Your task to perform on an android device: move an email to a new category in the gmail app Image 0: 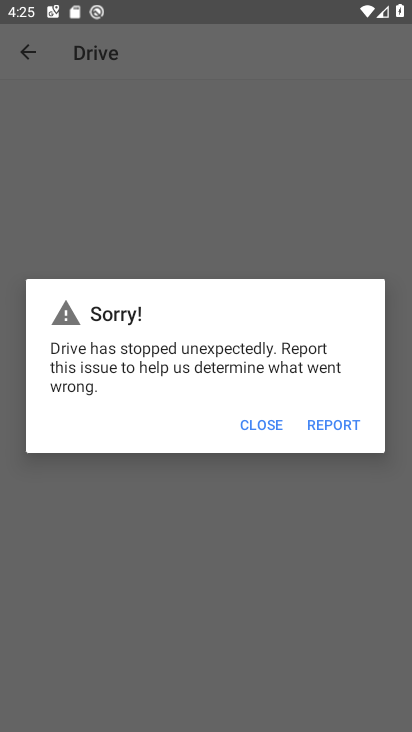
Step 0: press home button
Your task to perform on an android device: move an email to a new category in the gmail app Image 1: 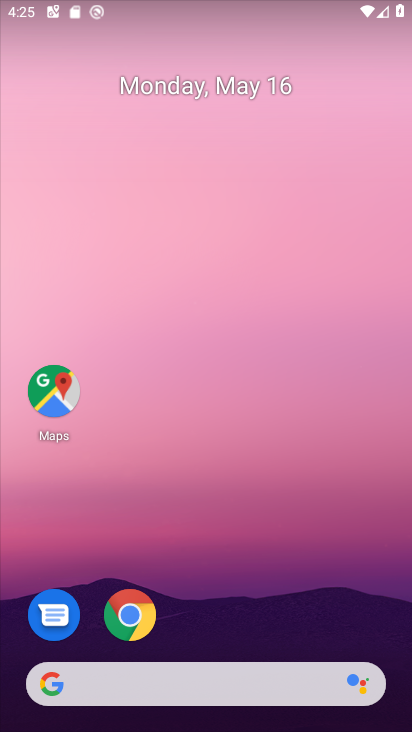
Step 1: drag from (233, 588) to (221, 130)
Your task to perform on an android device: move an email to a new category in the gmail app Image 2: 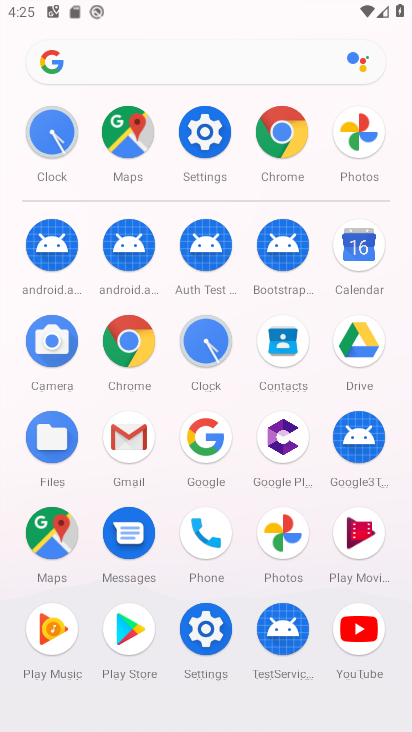
Step 2: click (129, 444)
Your task to perform on an android device: move an email to a new category in the gmail app Image 3: 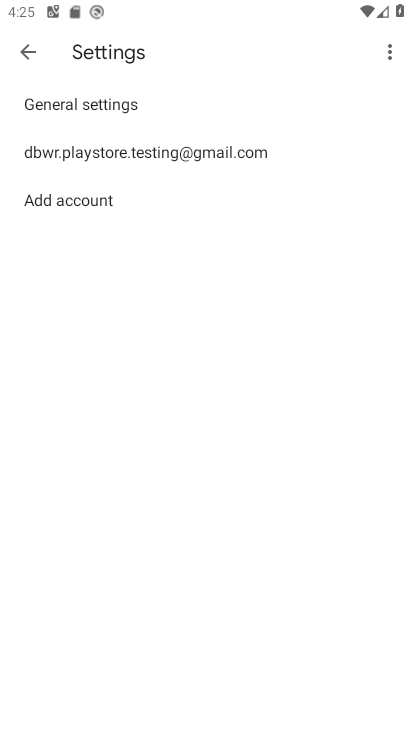
Step 3: click (100, 156)
Your task to perform on an android device: move an email to a new category in the gmail app Image 4: 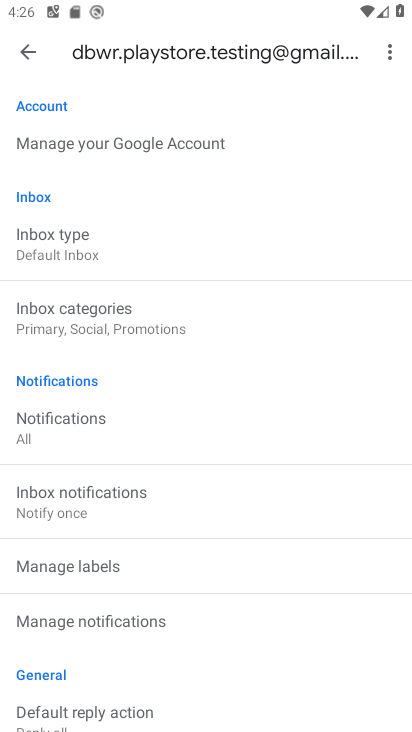
Step 4: click (39, 53)
Your task to perform on an android device: move an email to a new category in the gmail app Image 5: 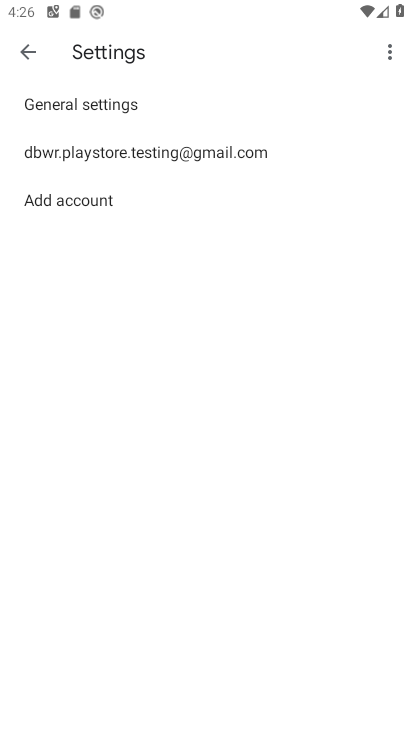
Step 5: click (22, 53)
Your task to perform on an android device: move an email to a new category in the gmail app Image 6: 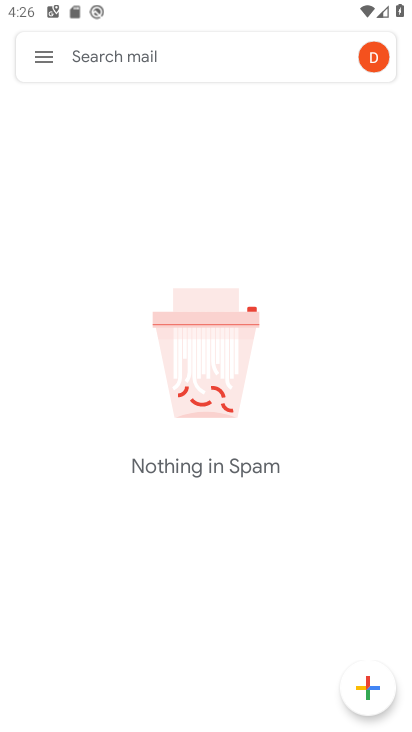
Step 6: click (47, 56)
Your task to perform on an android device: move an email to a new category in the gmail app Image 7: 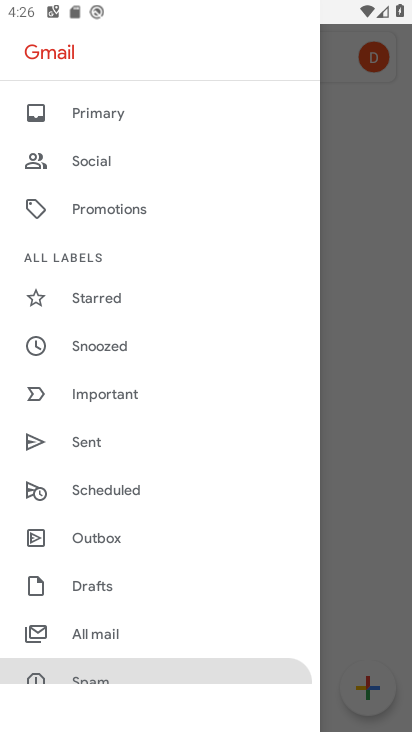
Step 7: click (94, 634)
Your task to perform on an android device: move an email to a new category in the gmail app Image 8: 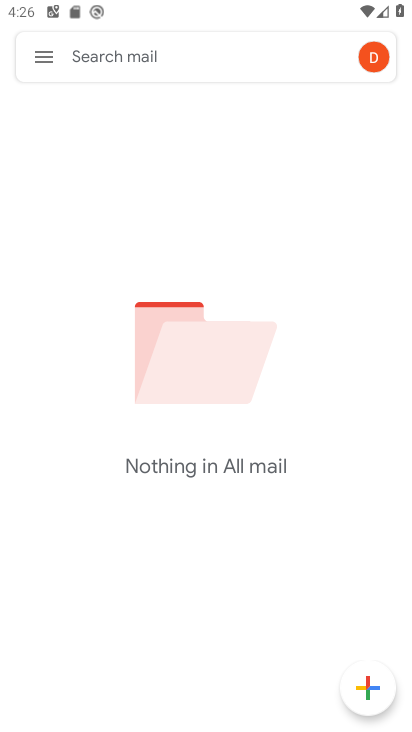
Step 8: task complete